Your task to perform on an android device: Show me recent news Image 0: 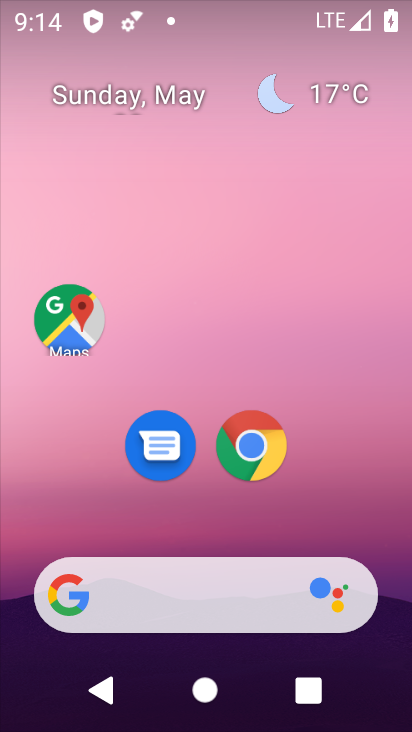
Step 0: drag from (180, 510) to (218, 120)
Your task to perform on an android device: Show me recent news Image 1: 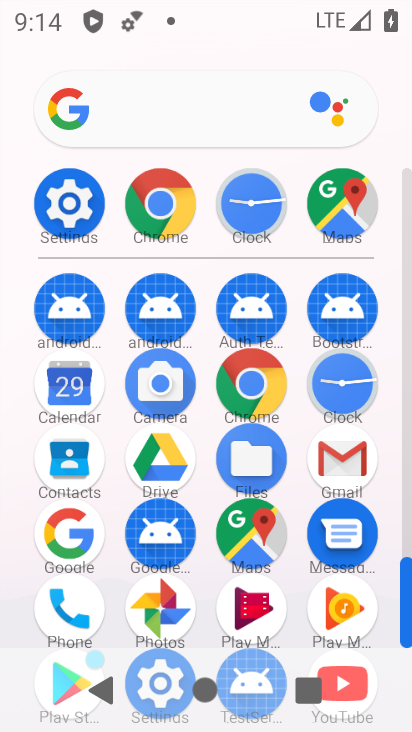
Step 1: click (194, 129)
Your task to perform on an android device: Show me recent news Image 2: 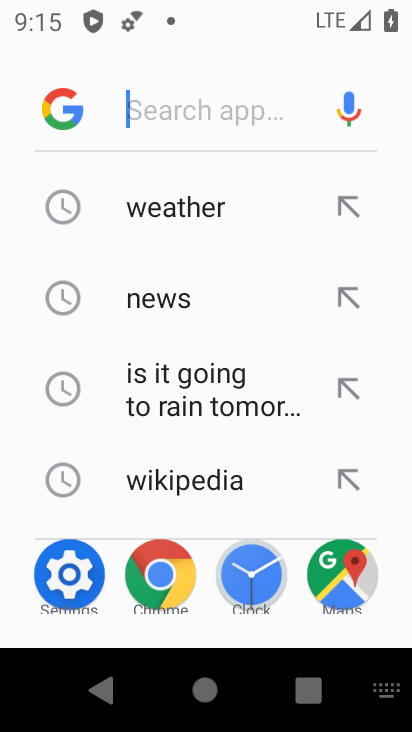
Step 2: type "recent news"
Your task to perform on an android device: Show me recent news Image 3: 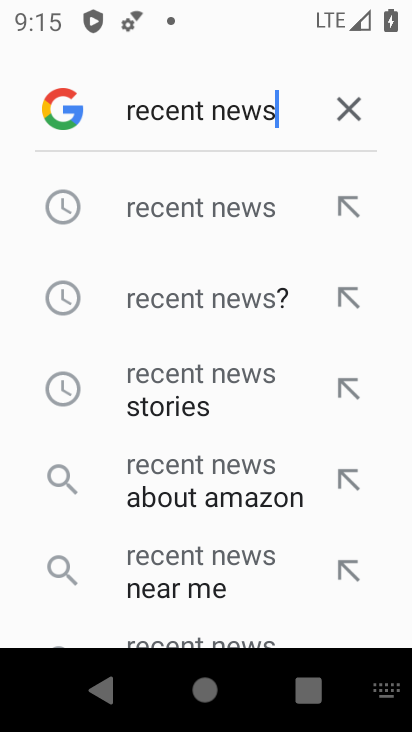
Step 3: click (168, 216)
Your task to perform on an android device: Show me recent news Image 4: 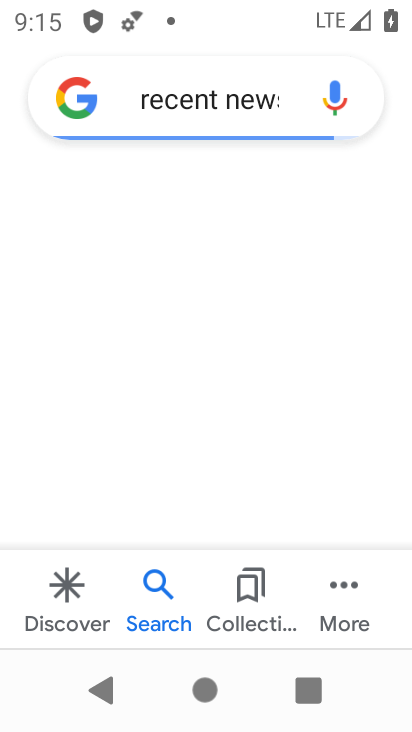
Step 4: task complete